Your task to perform on an android device: Turn off the flashlight Image 0: 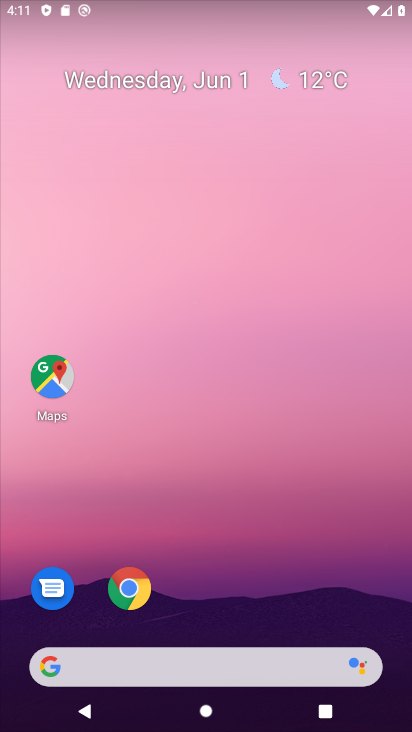
Step 0: drag from (353, 547) to (270, 49)
Your task to perform on an android device: Turn off the flashlight Image 1: 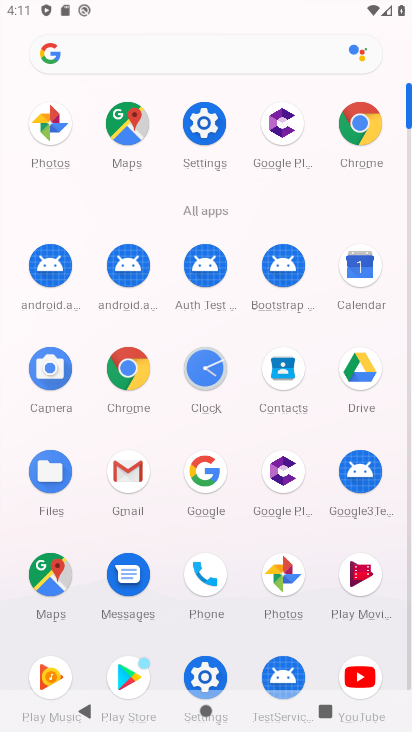
Step 1: click (196, 131)
Your task to perform on an android device: Turn off the flashlight Image 2: 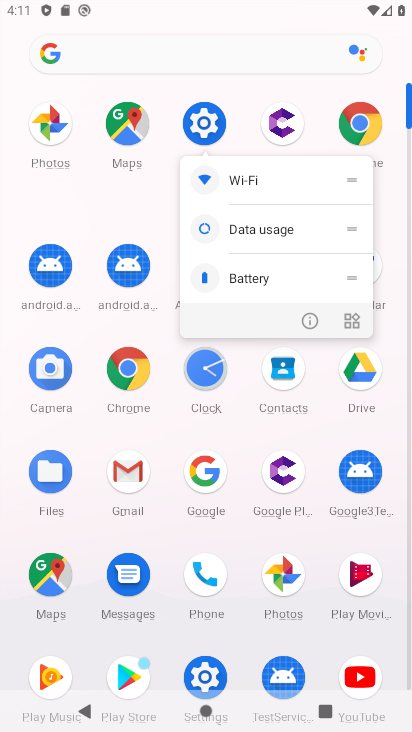
Step 2: click (196, 131)
Your task to perform on an android device: Turn off the flashlight Image 3: 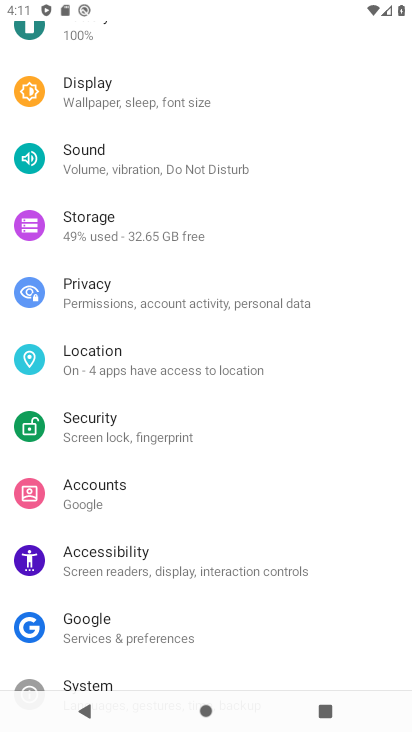
Step 3: task complete